Your task to perform on an android device: Go to calendar. Show me events next week Image 0: 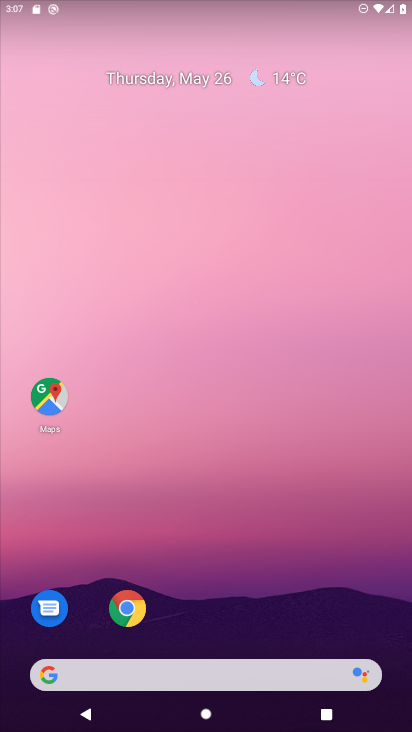
Step 0: drag from (265, 623) to (180, 138)
Your task to perform on an android device: Go to calendar. Show me events next week Image 1: 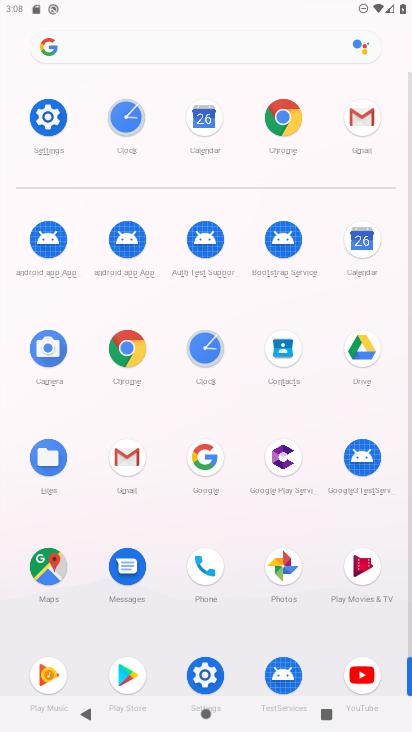
Step 1: click (186, 133)
Your task to perform on an android device: Go to calendar. Show me events next week Image 2: 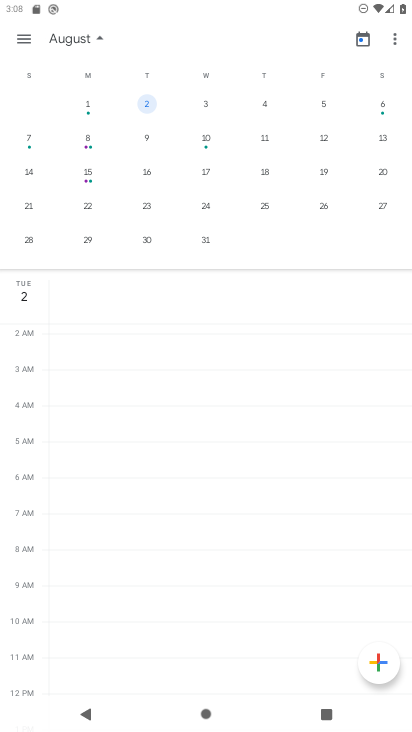
Step 2: click (23, 171)
Your task to perform on an android device: Go to calendar. Show me events next week Image 3: 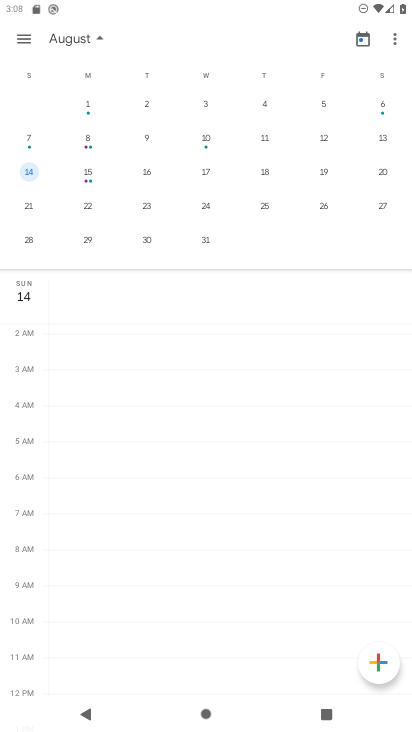
Step 3: task complete